Your task to perform on an android device: refresh tabs in the chrome app Image 0: 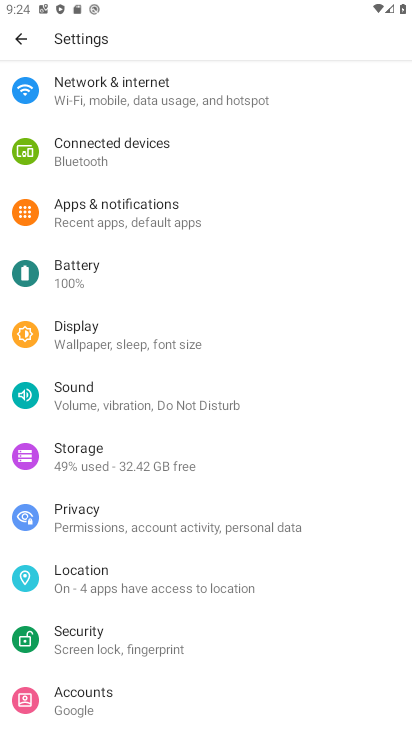
Step 0: press home button
Your task to perform on an android device: refresh tabs in the chrome app Image 1: 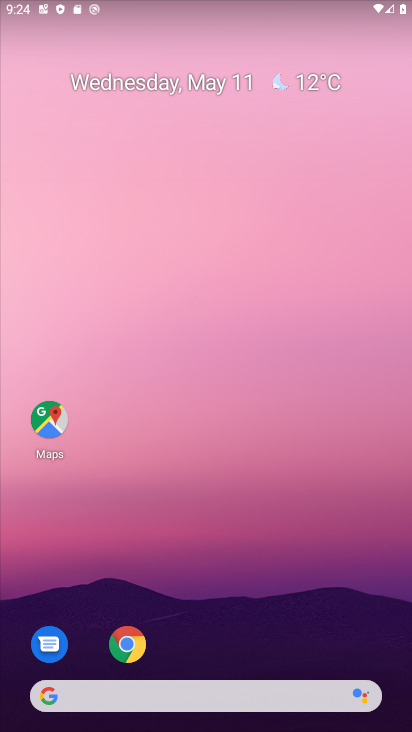
Step 1: click (133, 644)
Your task to perform on an android device: refresh tabs in the chrome app Image 2: 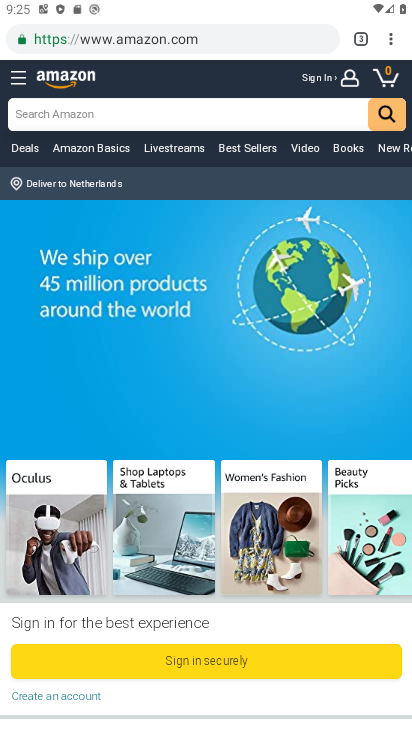
Step 2: click (395, 37)
Your task to perform on an android device: refresh tabs in the chrome app Image 3: 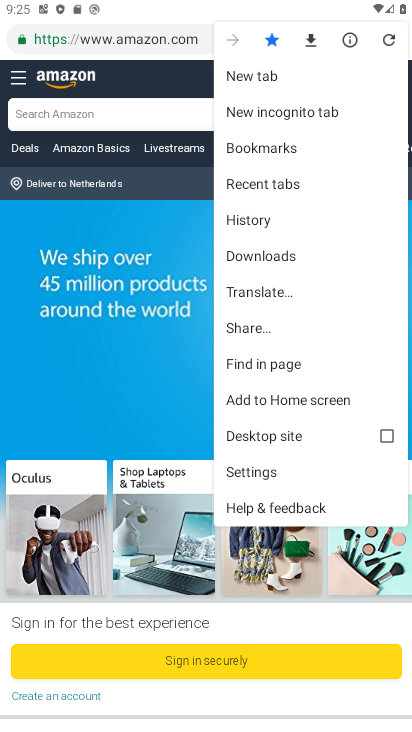
Step 3: click (395, 37)
Your task to perform on an android device: refresh tabs in the chrome app Image 4: 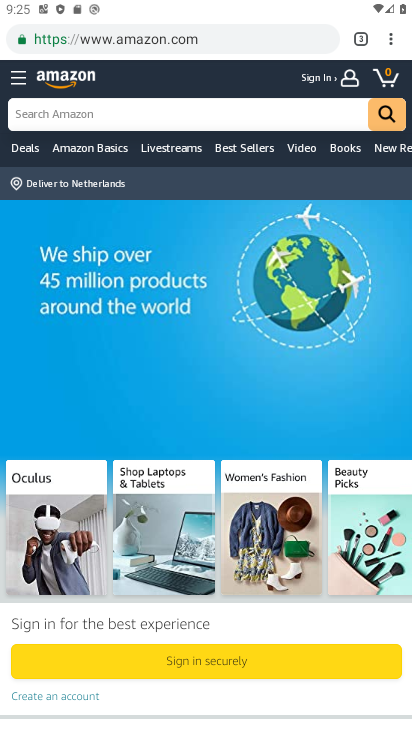
Step 4: task complete